Your task to perform on an android device: change the clock style Image 0: 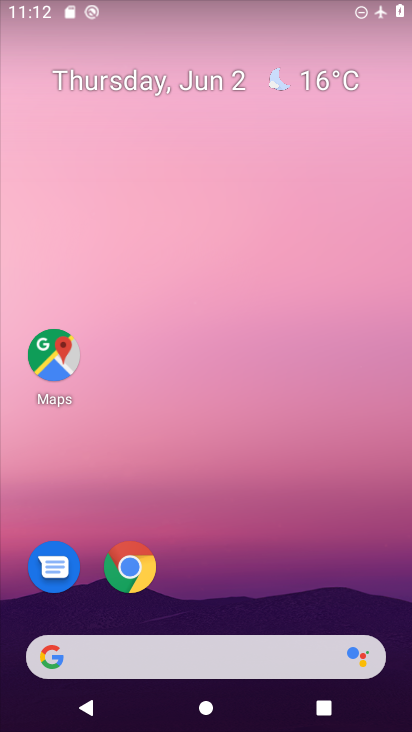
Step 0: drag from (302, 534) to (306, 148)
Your task to perform on an android device: change the clock style Image 1: 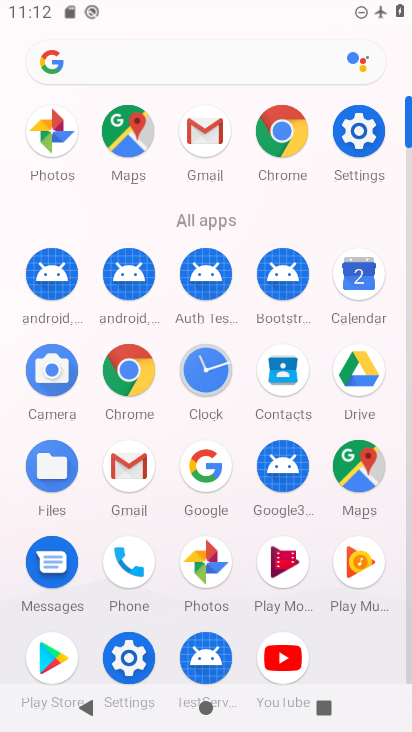
Step 1: click (200, 369)
Your task to perform on an android device: change the clock style Image 2: 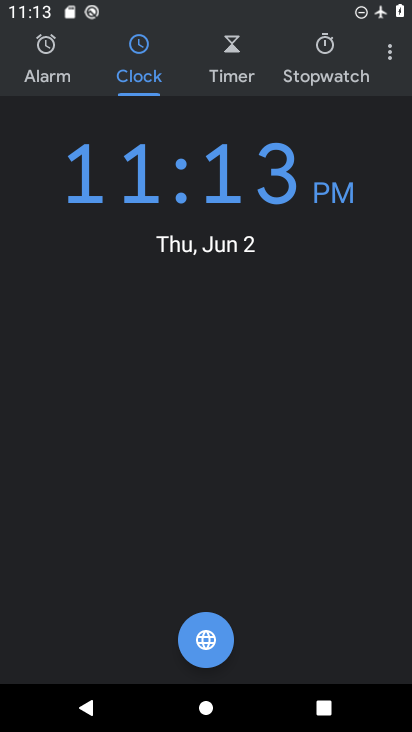
Step 2: drag from (392, 59) to (273, 110)
Your task to perform on an android device: change the clock style Image 3: 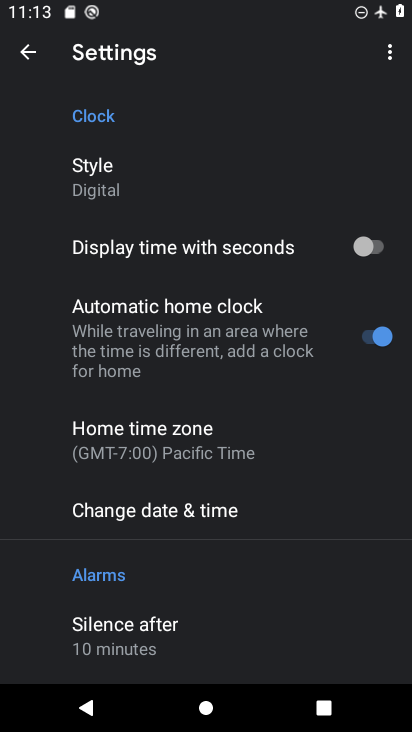
Step 3: click (109, 172)
Your task to perform on an android device: change the clock style Image 4: 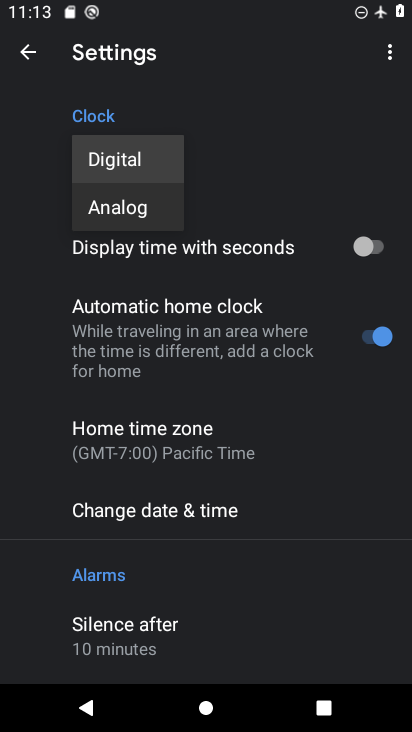
Step 4: click (138, 204)
Your task to perform on an android device: change the clock style Image 5: 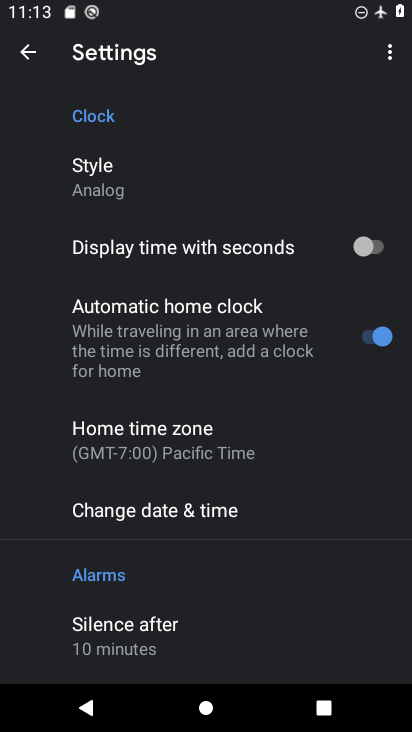
Step 5: task complete